Your task to perform on an android device: Check the weather Image 0: 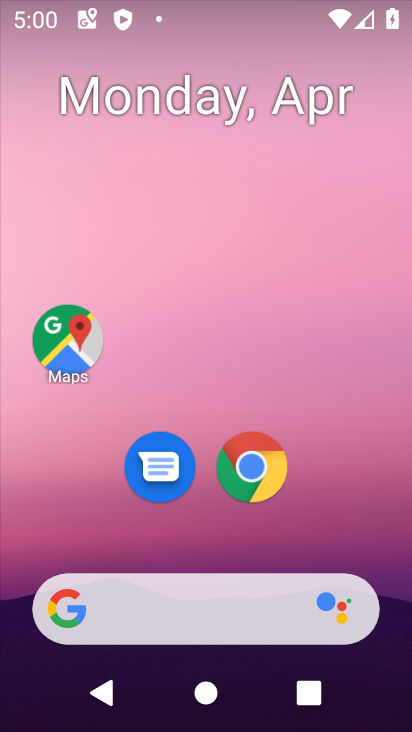
Step 0: drag from (310, 236) to (334, 90)
Your task to perform on an android device: Check the weather Image 1: 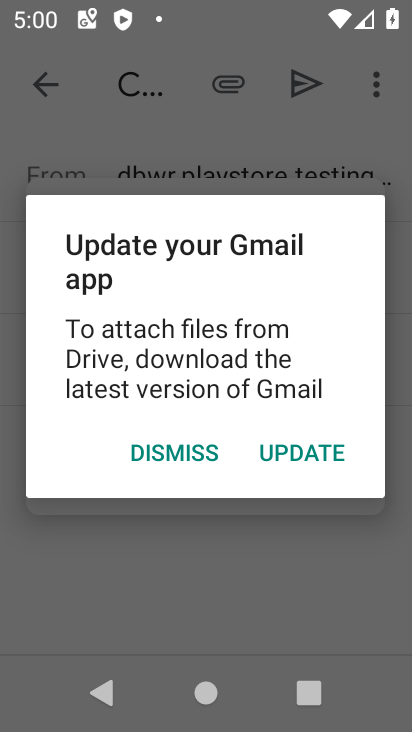
Step 1: press back button
Your task to perform on an android device: Check the weather Image 2: 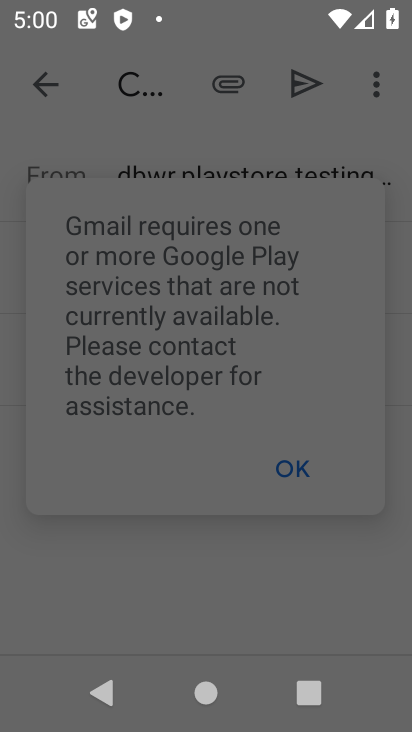
Step 2: press back button
Your task to perform on an android device: Check the weather Image 3: 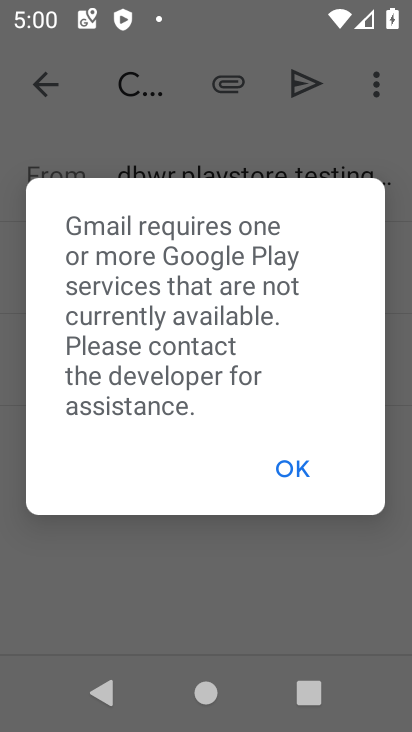
Step 3: press home button
Your task to perform on an android device: Check the weather Image 4: 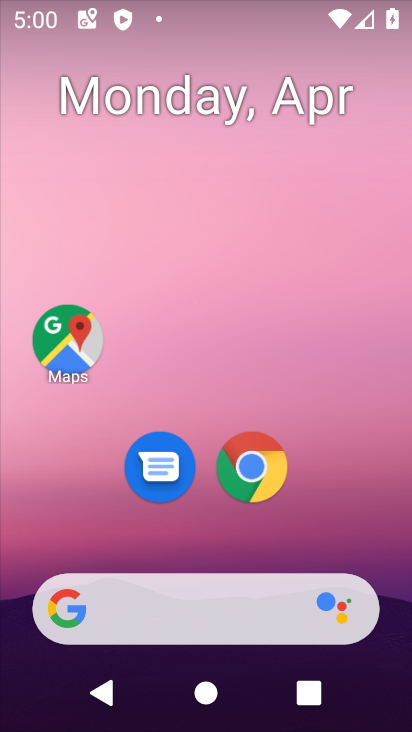
Step 4: drag from (254, 557) to (304, 12)
Your task to perform on an android device: Check the weather Image 5: 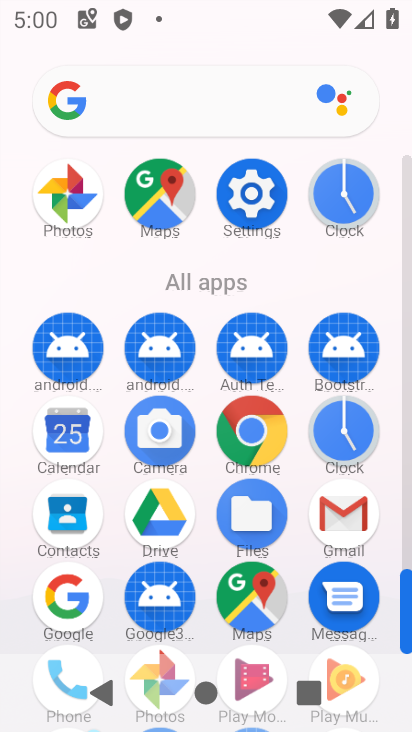
Step 5: click (253, 433)
Your task to perform on an android device: Check the weather Image 6: 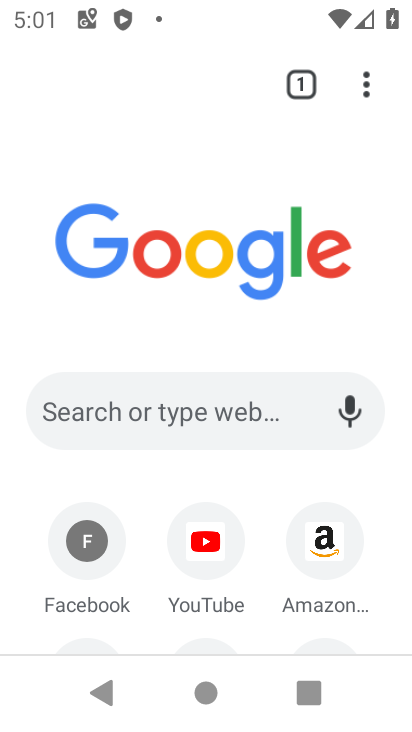
Step 6: click (224, 432)
Your task to perform on an android device: Check the weather Image 7: 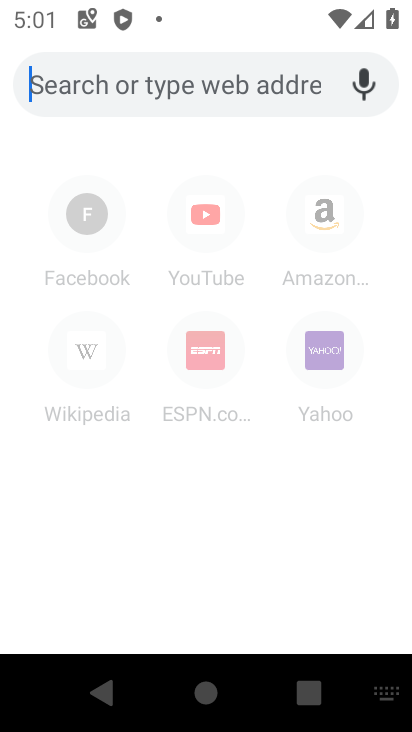
Step 7: type "weather"
Your task to perform on an android device: Check the weather Image 8: 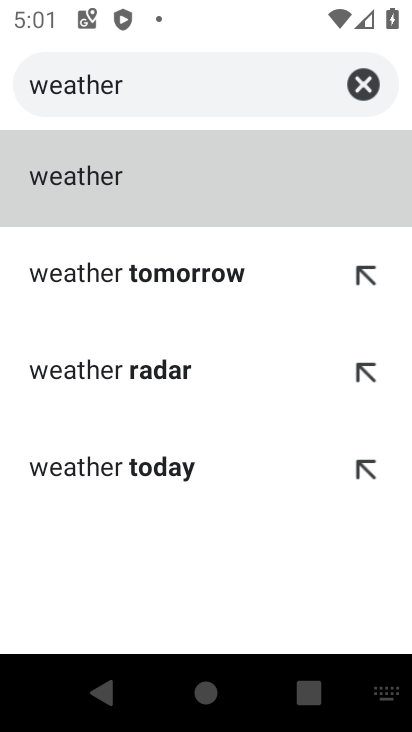
Step 8: click (272, 182)
Your task to perform on an android device: Check the weather Image 9: 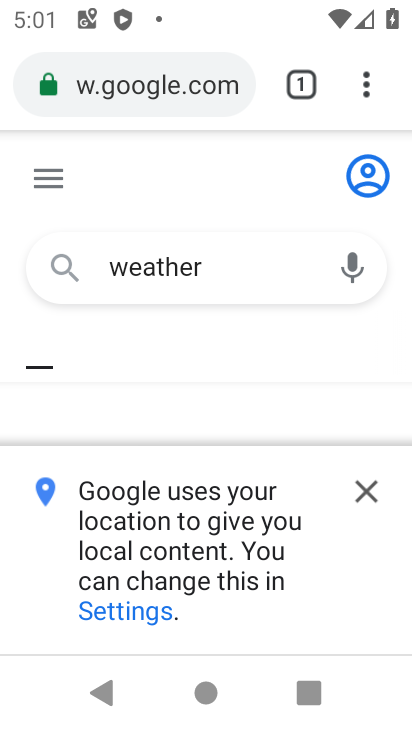
Step 9: click (366, 492)
Your task to perform on an android device: Check the weather Image 10: 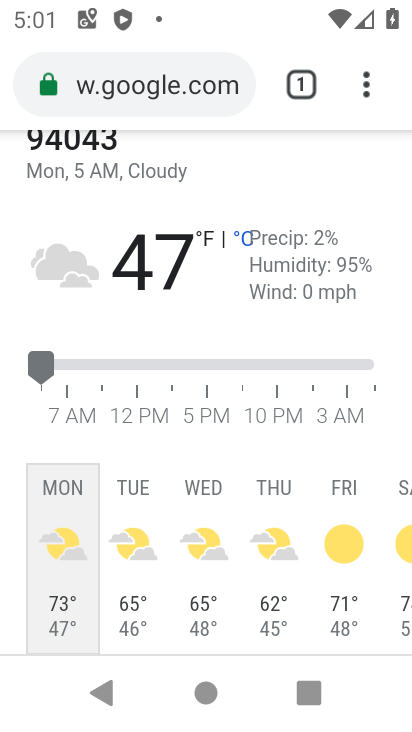
Step 10: task complete